Your task to perform on an android device: Open Google Chrome and open the bookmarks view Image 0: 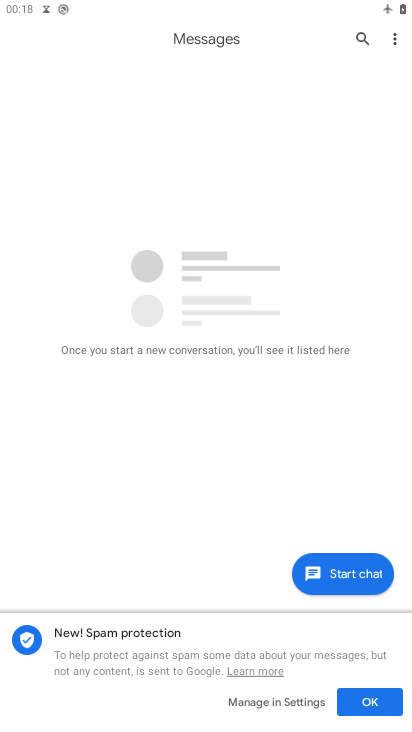
Step 0: press home button
Your task to perform on an android device: Open Google Chrome and open the bookmarks view Image 1: 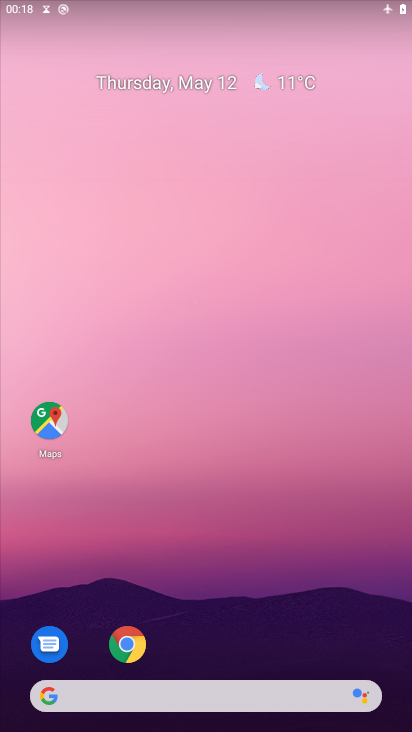
Step 1: click (123, 642)
Your task to perform on an android device: Open Google Chrome and open the bookmarks view Image 2: 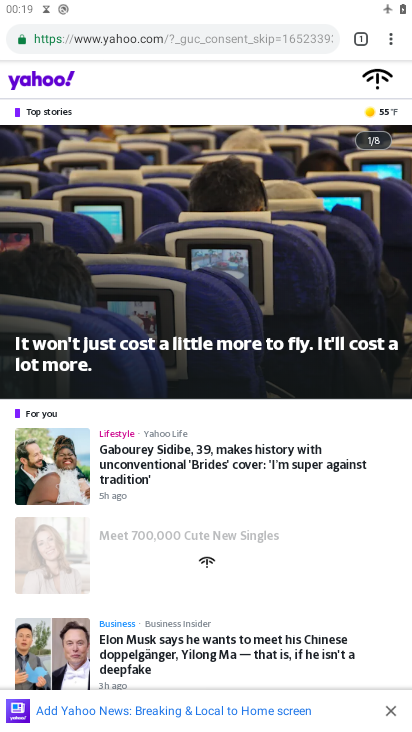
Step 2: click (388, 705)
Your task to perform on an android device: Open Google Chrome and open the bookmarks view Image 3: 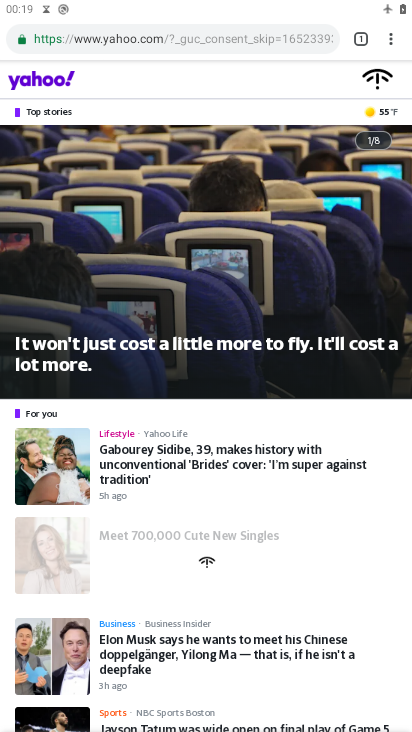
Step 3: click (393, 35)
Your task to perform on an android device: Open Google Chrome and open the bookmarks view Image 4: 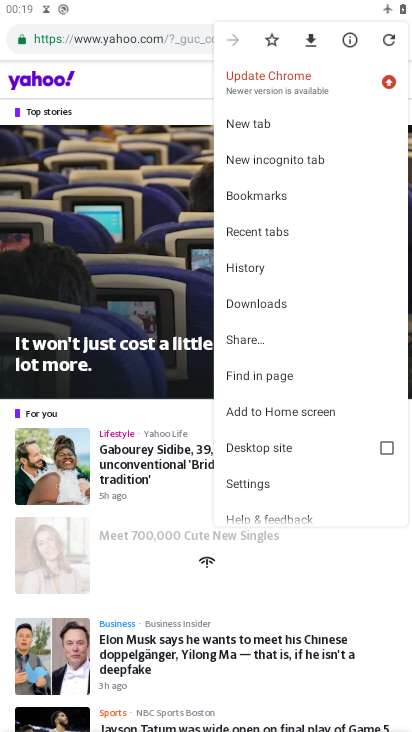
Step 4: click (274, 480)
Your task to perform on an android device: Open Google Chrome and open the bookmarks view Image 5: 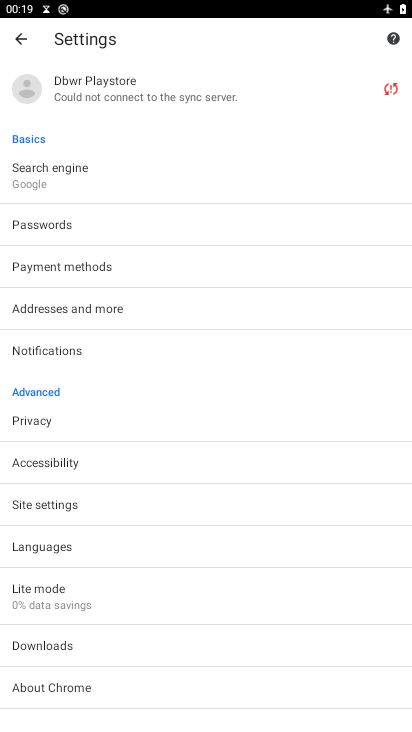
Step 5: click (20, 39)
Your task to perform on an android device: Open Google Chrome and open the bookmarks view Image 6: 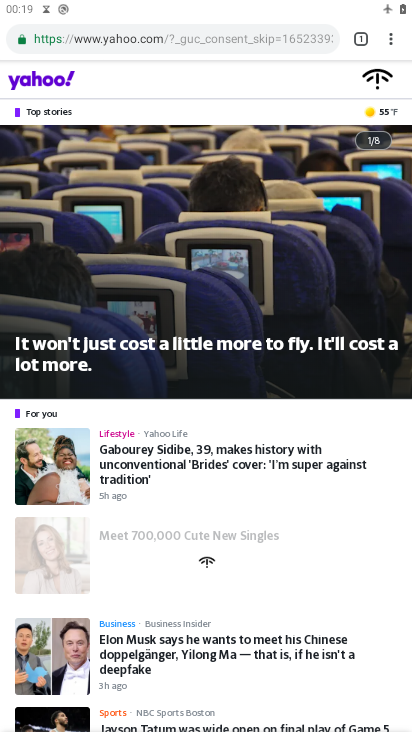
Step 6: click (390, 35)
Your task to perform on an android device: Open Google Chrome and open the bookmarks view Image 7: 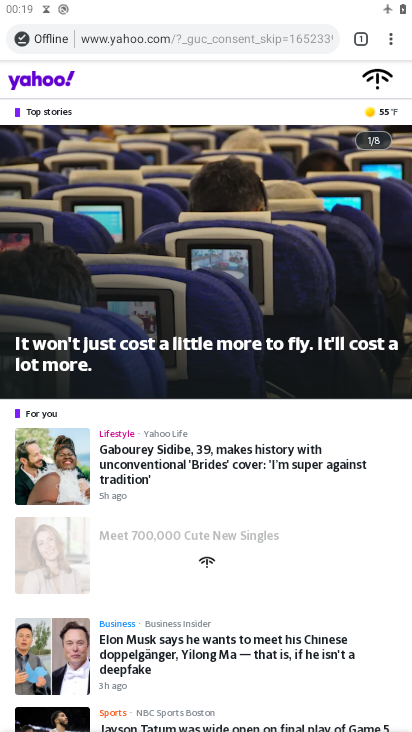
Step 7: click (390, 38)
Your task to perform on an android device: Open Google Chrome and open the bookmarks view Image 8: 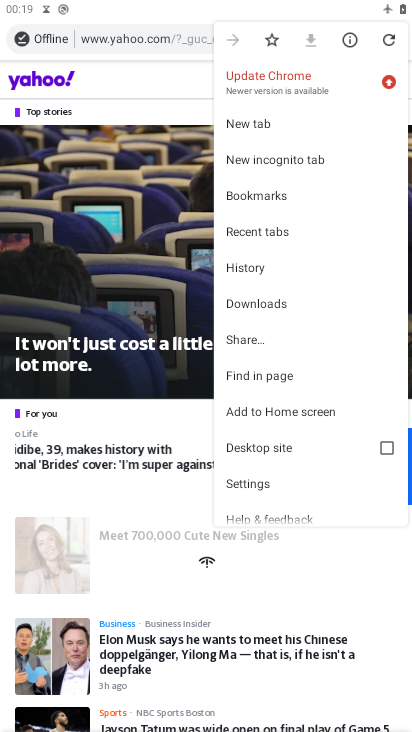
Step 8: click (273, 189)
Your task to perform on an android device: Open Google Chrome and open the bookmarks view Image 9: 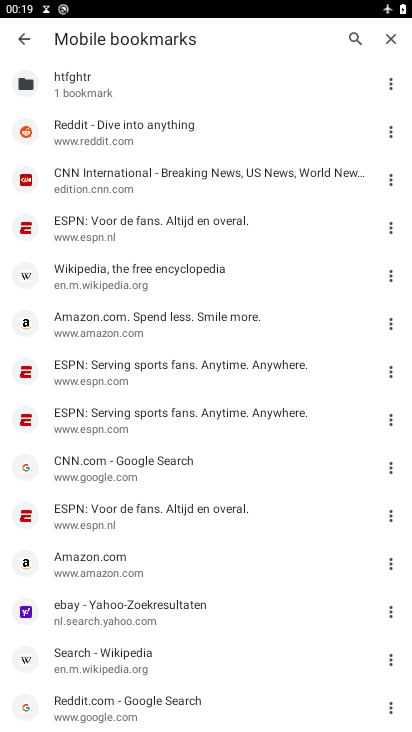
Step 9: click (141, 507)
Your task to perform on an android device: Open Google Chrome and open the bookmarks view Image 10: 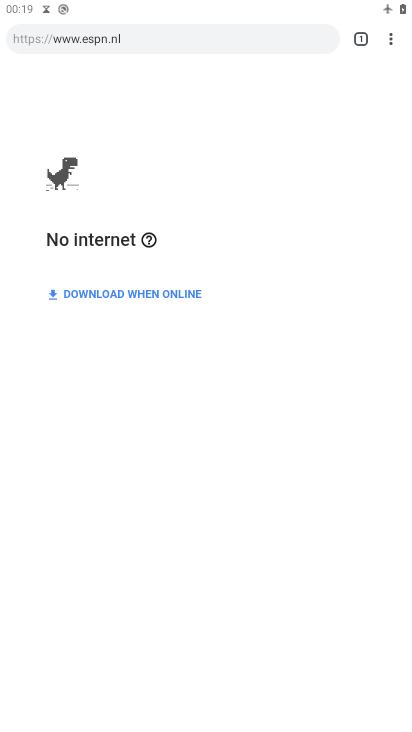
Step 10: task complete